Your task to perform on an android device: Turn off the flashlight Image 0: 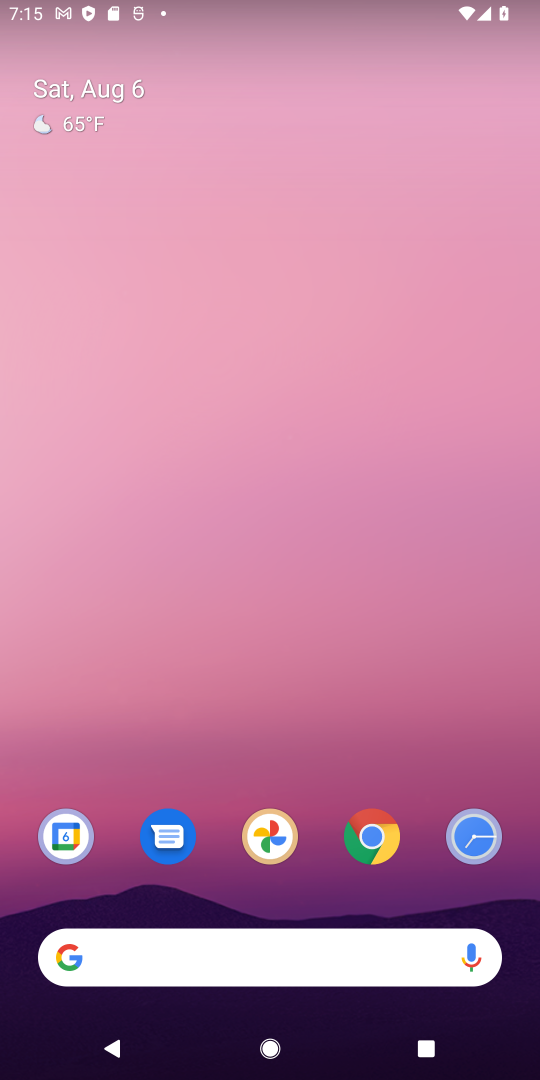
Step 0: drag from (368, 919) to (139, 267)
Your task to perform on an android device: Turn off the flashlight Image 1: 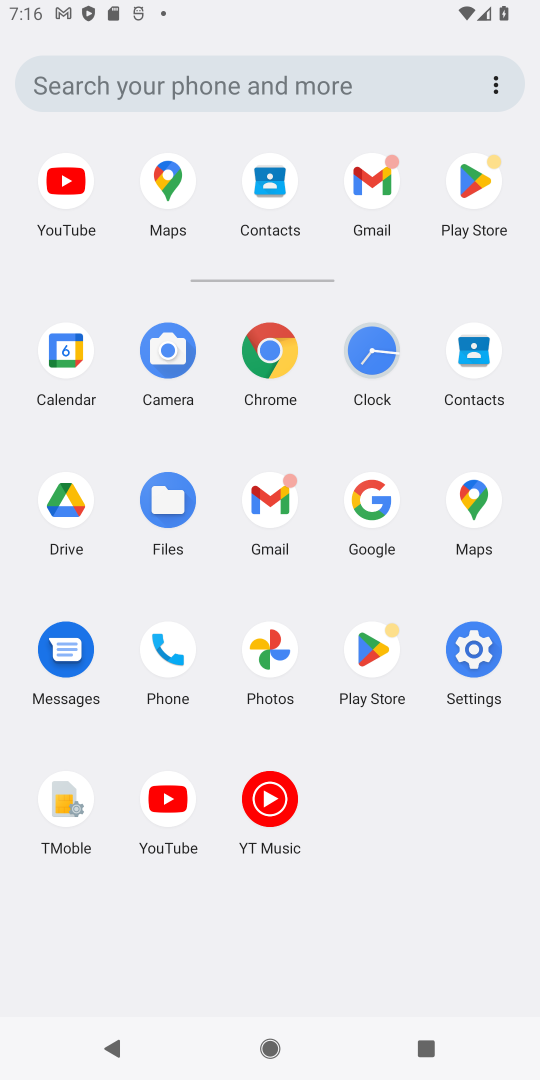
Step 1: drag from (171, 9) to (248, 859)
Your task to perform on an android device: Turn off the flashlight Image 2: 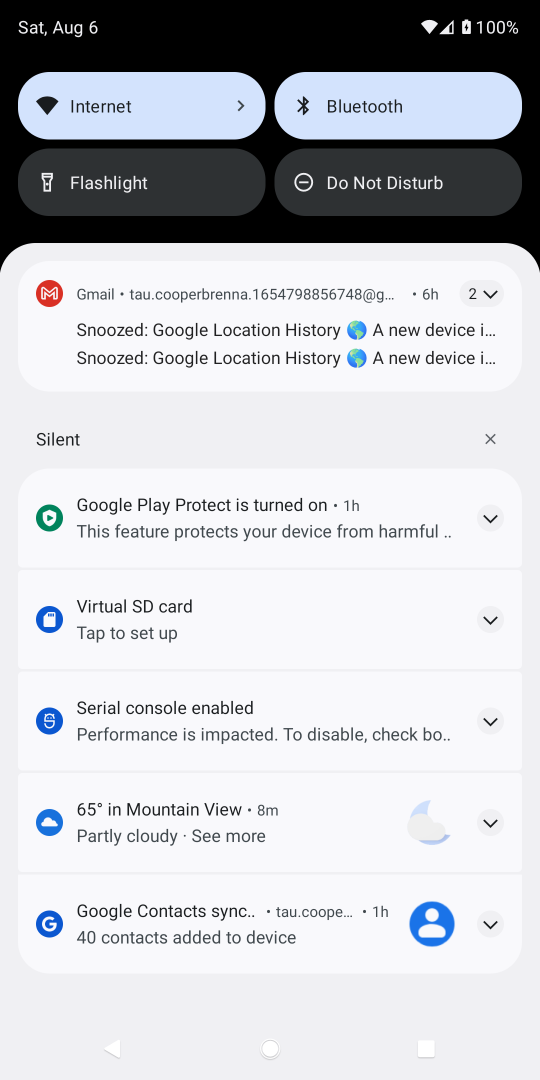
Step 2: click (124, 176)
Your task to perform on an android device: Turn off the flashlight Image 3: 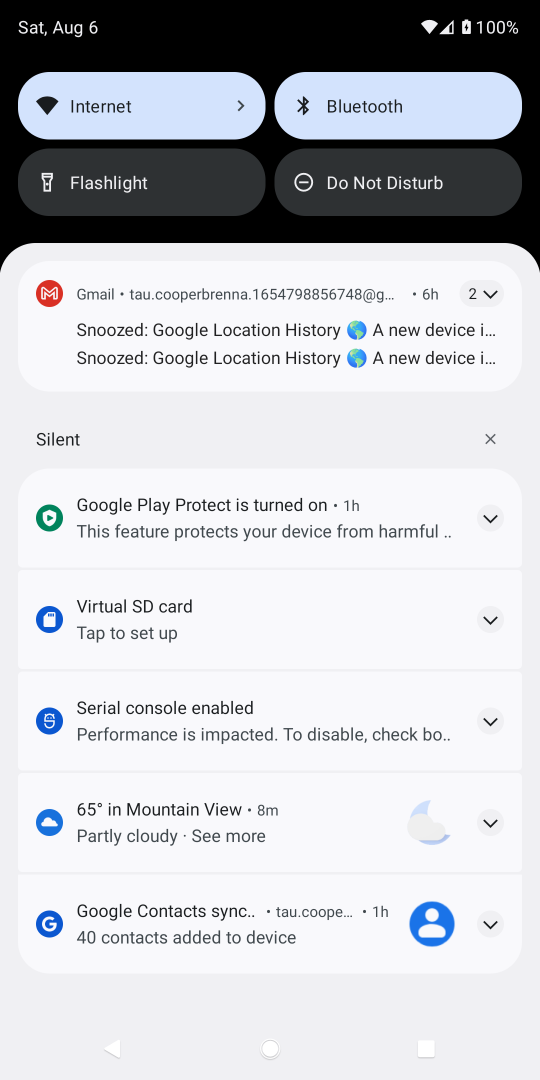
Step 3: task complete